Your task to perform on an android device: add a contact Image 0: 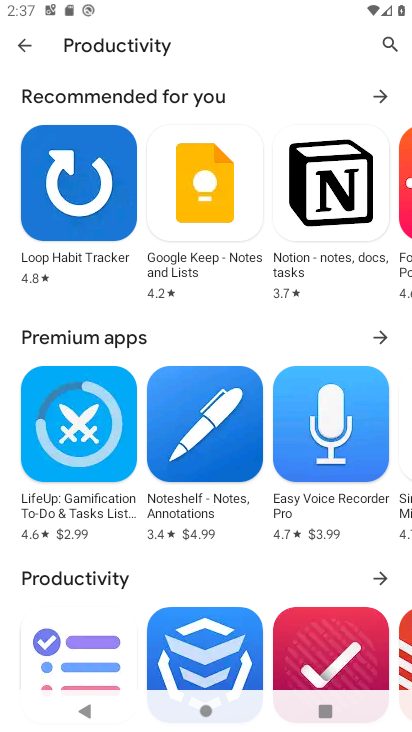
Step 0: press home button
Your task to perform on an android device: add a contact Image 1: 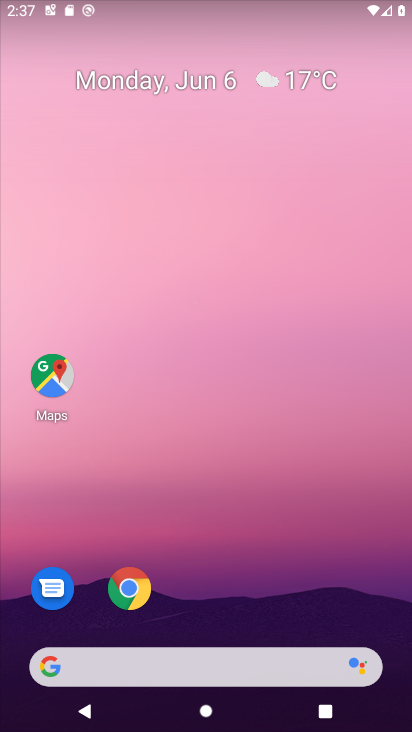
Step 1: drag from (297, 729) to (243, 244)
Your task to perform on an android device: add a contact Image 2: 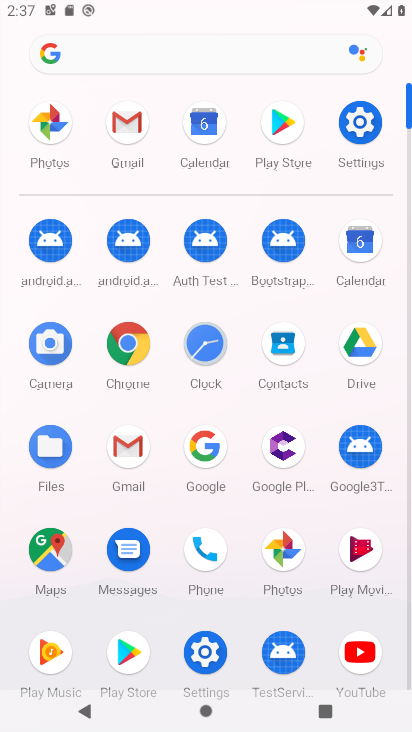
Step 2: click (270, 347)
Your task to perform on an android device: add a contact Image 3: 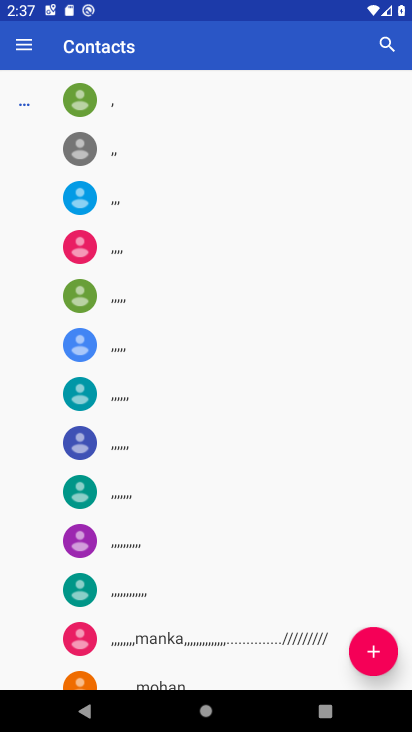
Step 3: click (367, 644)
Your task to perform on an android device: add a contact Image 4: 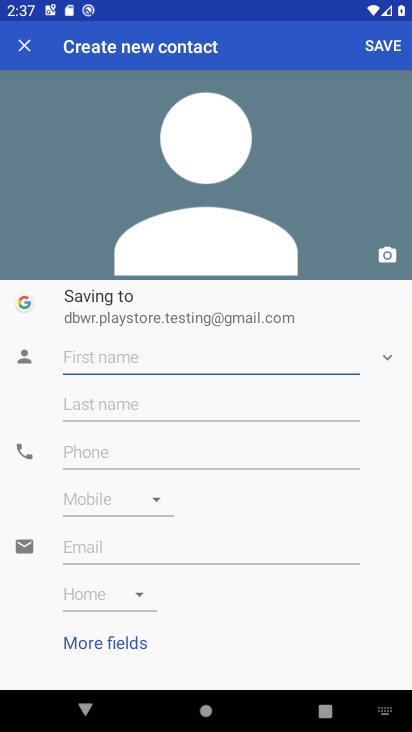
Step 4: type "jjj"
Your task to perform on an android device: add a contact Image 5: 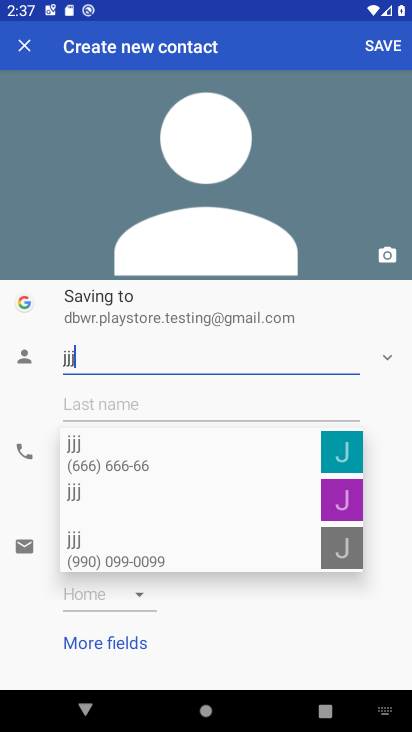
Step 5: click (210, 462)
Your task to perform on an android device: add a contact Image 6: 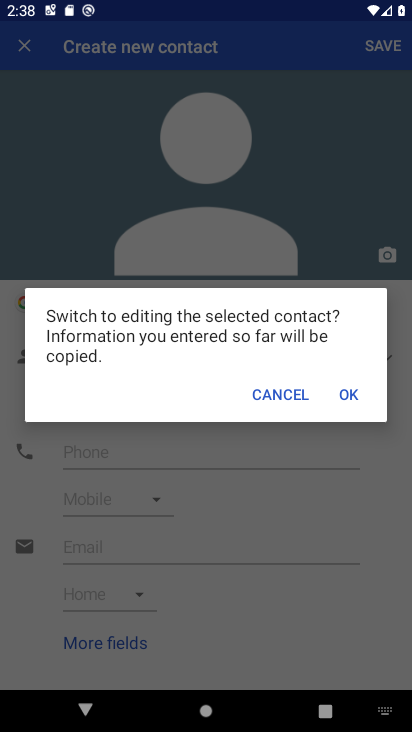
Step 6: click (294, 397)
Your task to perform on an android device: add a contact Image 7: 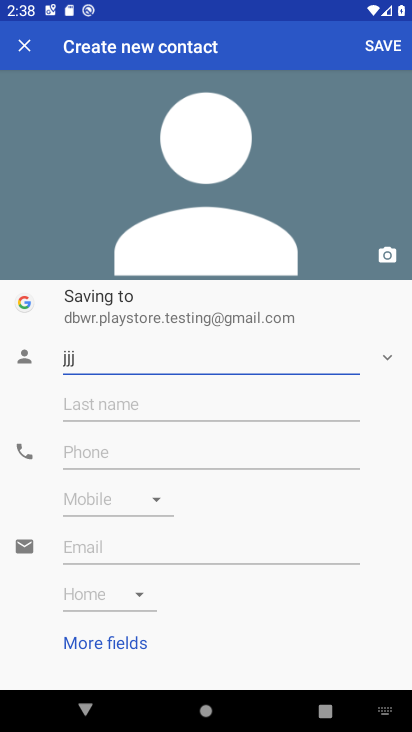
Step 7: type "yyu"
Your task to perform on an android device: add a contact Image 8: 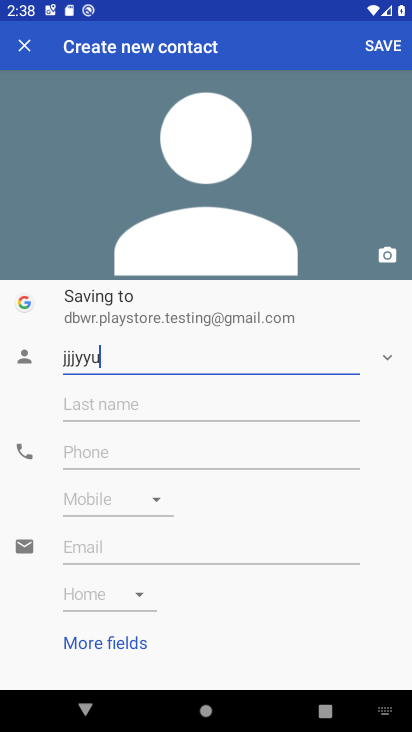
Step 8: click (253, 425)
Your task to perform on an android device: add a contact Image 9: 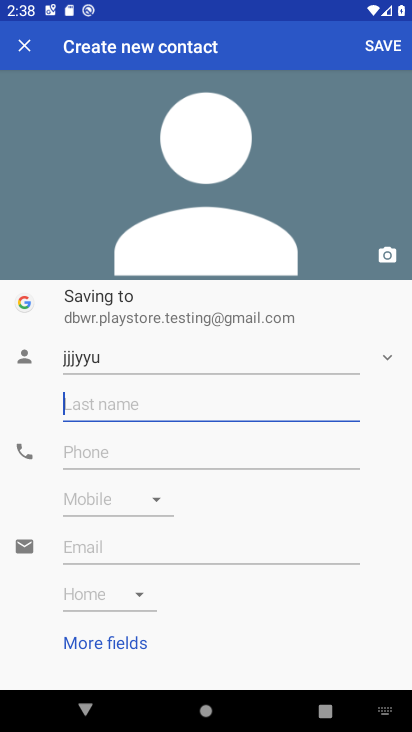
Step 9: click (242, 441)
Your task to perform on an android device: add a contact Image 10: 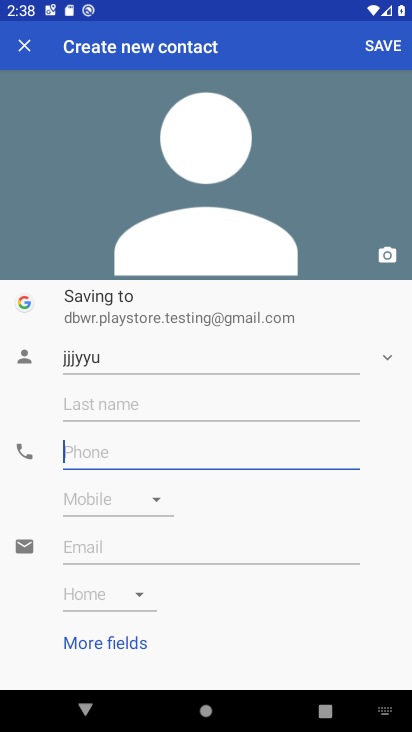
Step 10: type "44"
Your task to perform on an android device: add a contact Image 11: 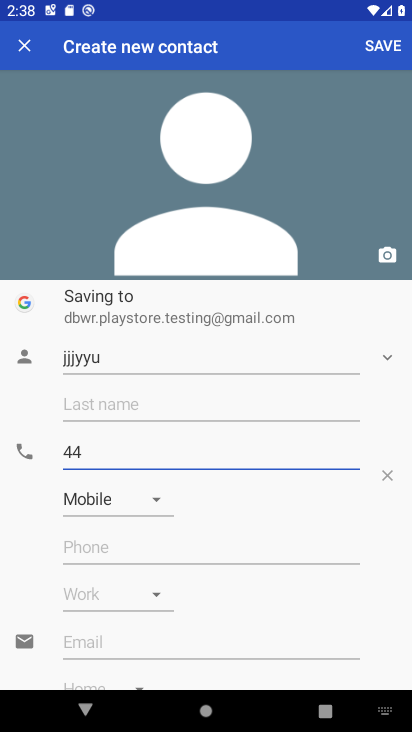
Step 11: click (400, 45)
Your task to perform on an android device: add a contact Image 12: 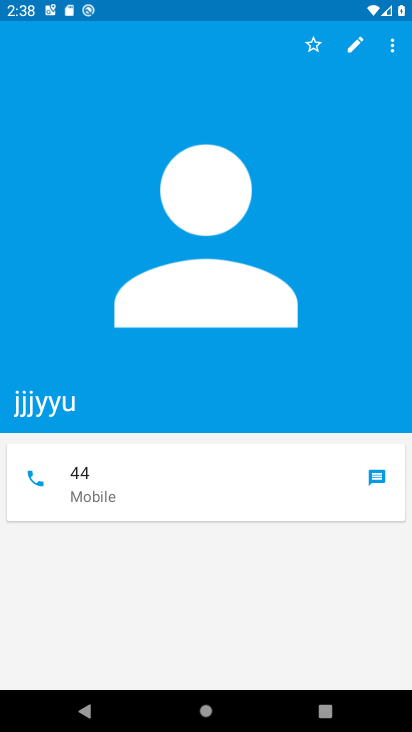
Step 12: task complete